Your task to perform on an android device: install app "Adobe Express: Graphic Design" Image 0: 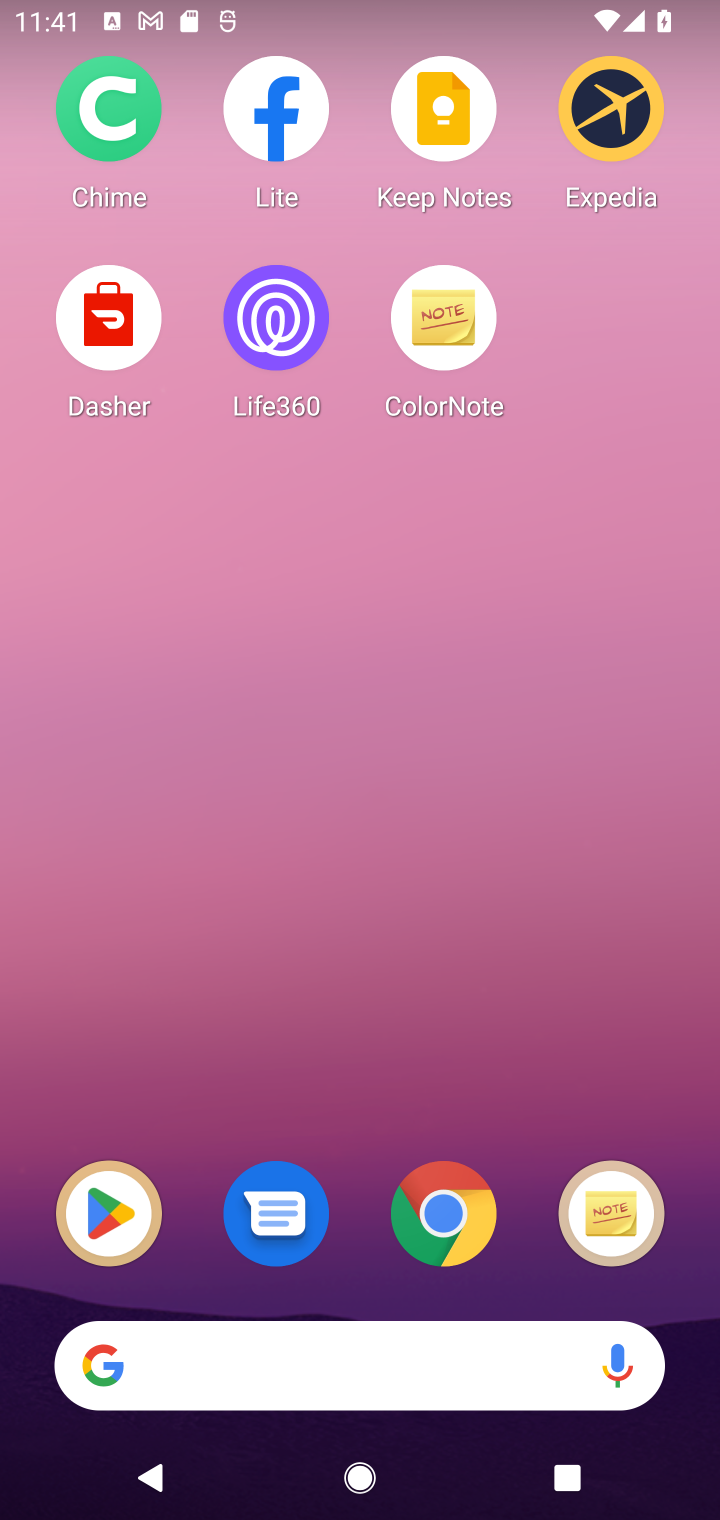
Step 0: click (79, 1227)
Your task to perform on an android device: install app "Adobe Express: Graphic Design" Image 1: 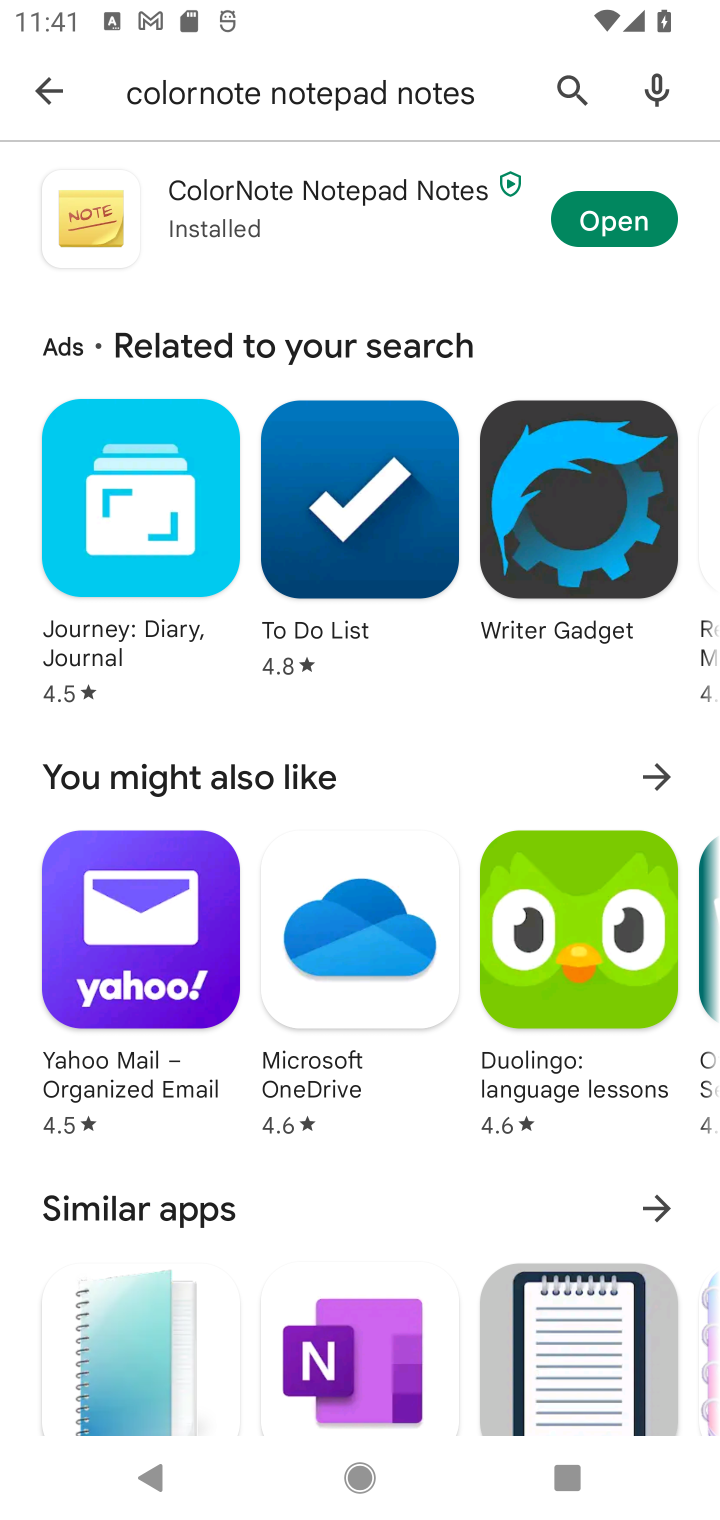
Step 1: click (55, 95)
Your task to perform on an android device: install app "Adobe Express: Graphic Design" Image 2: 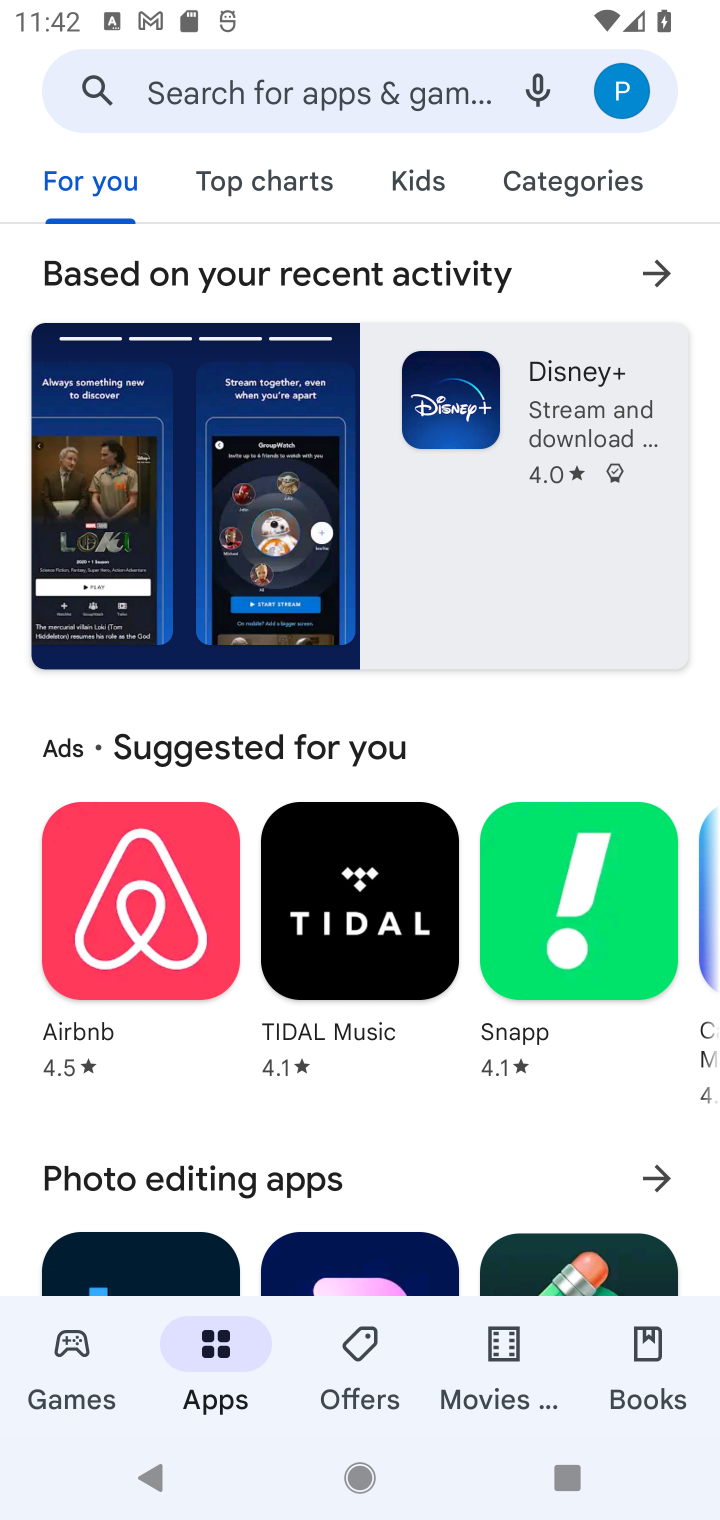
Step 2: click (348, 93)
Your task to perform on an android device: install app "Adobe Express: Graphic Design" Image 3: 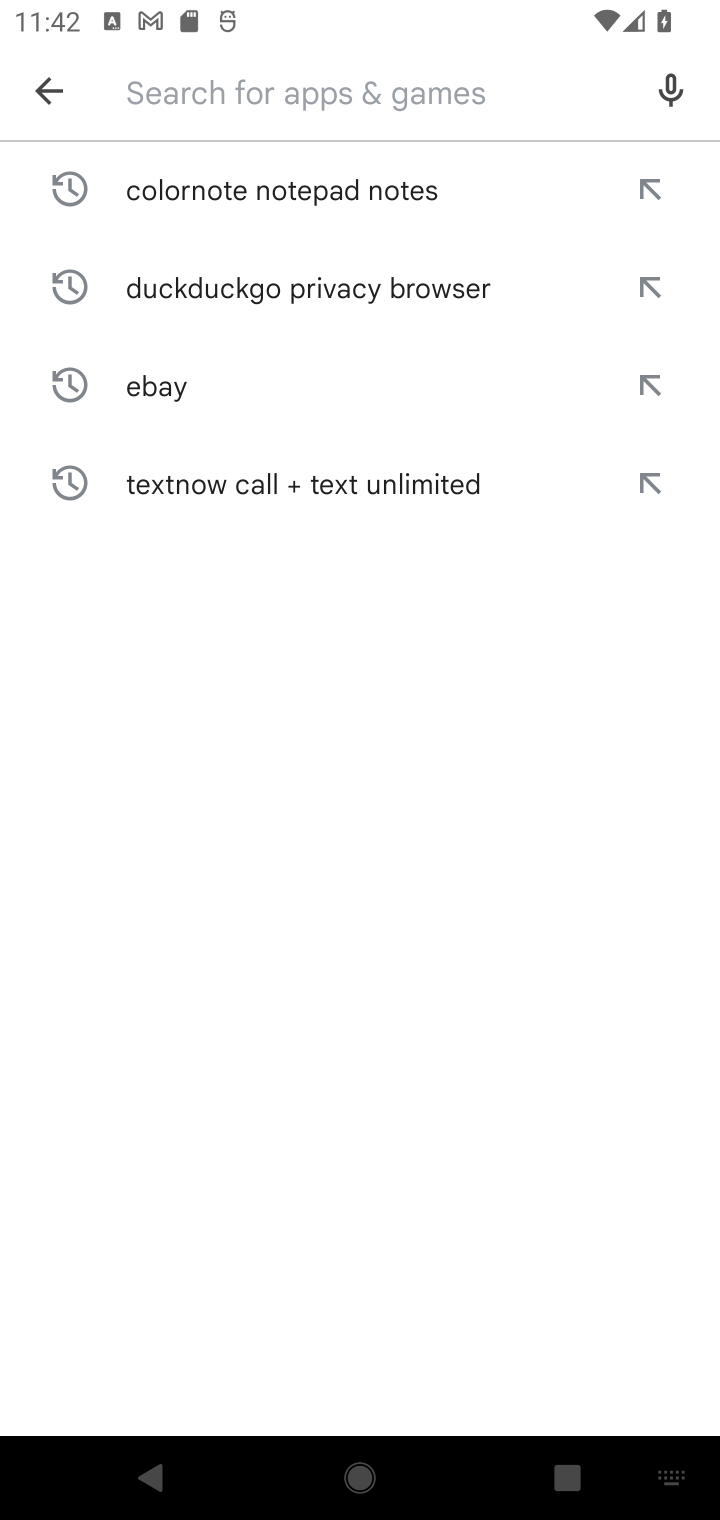
Step 3: type "Adobe Express: Graphic Design"
Your task to perform on an android device: install app "Adobe Express: Graphic Design" Image 4: 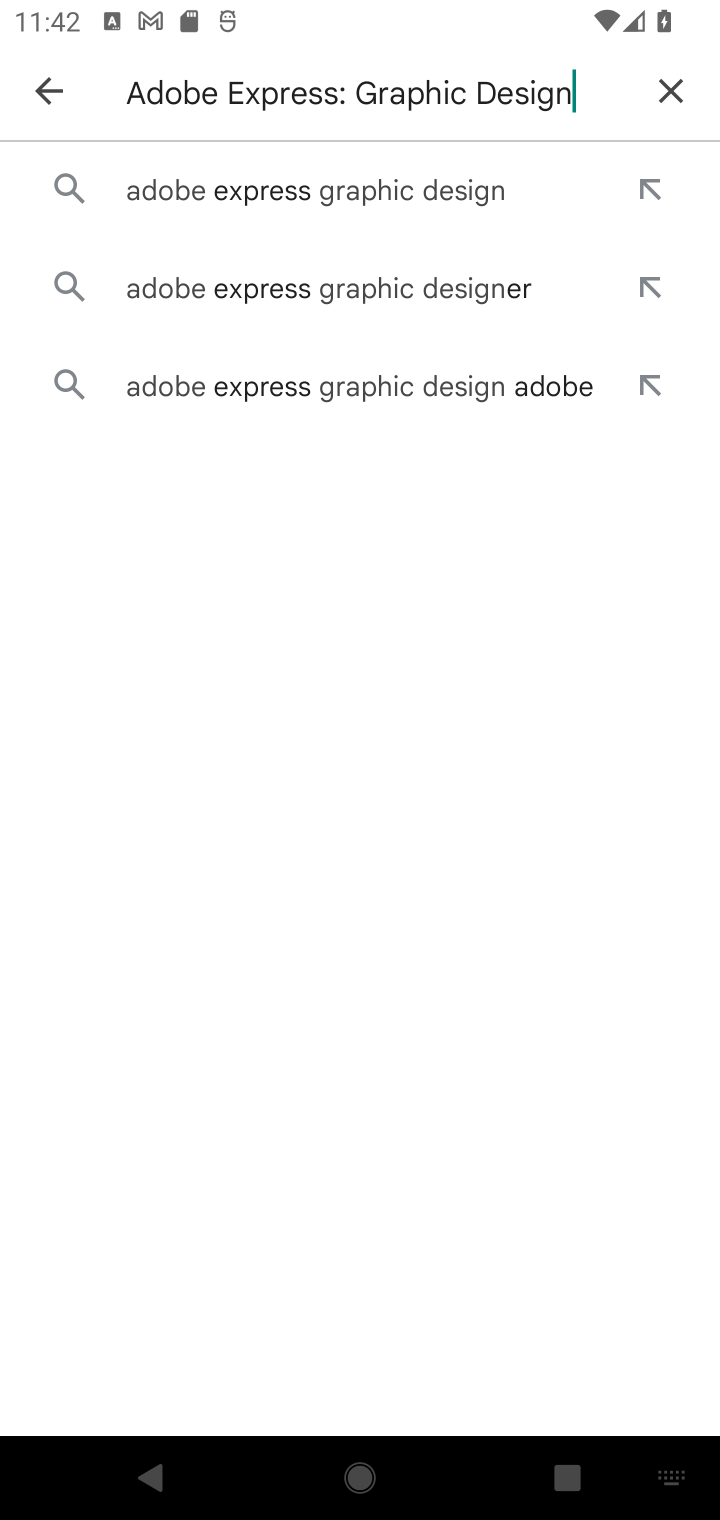
Step 4: click (365, 185)
Your task to perform on an android device: install app "Adobe Express: Graphic Design" Image 5: 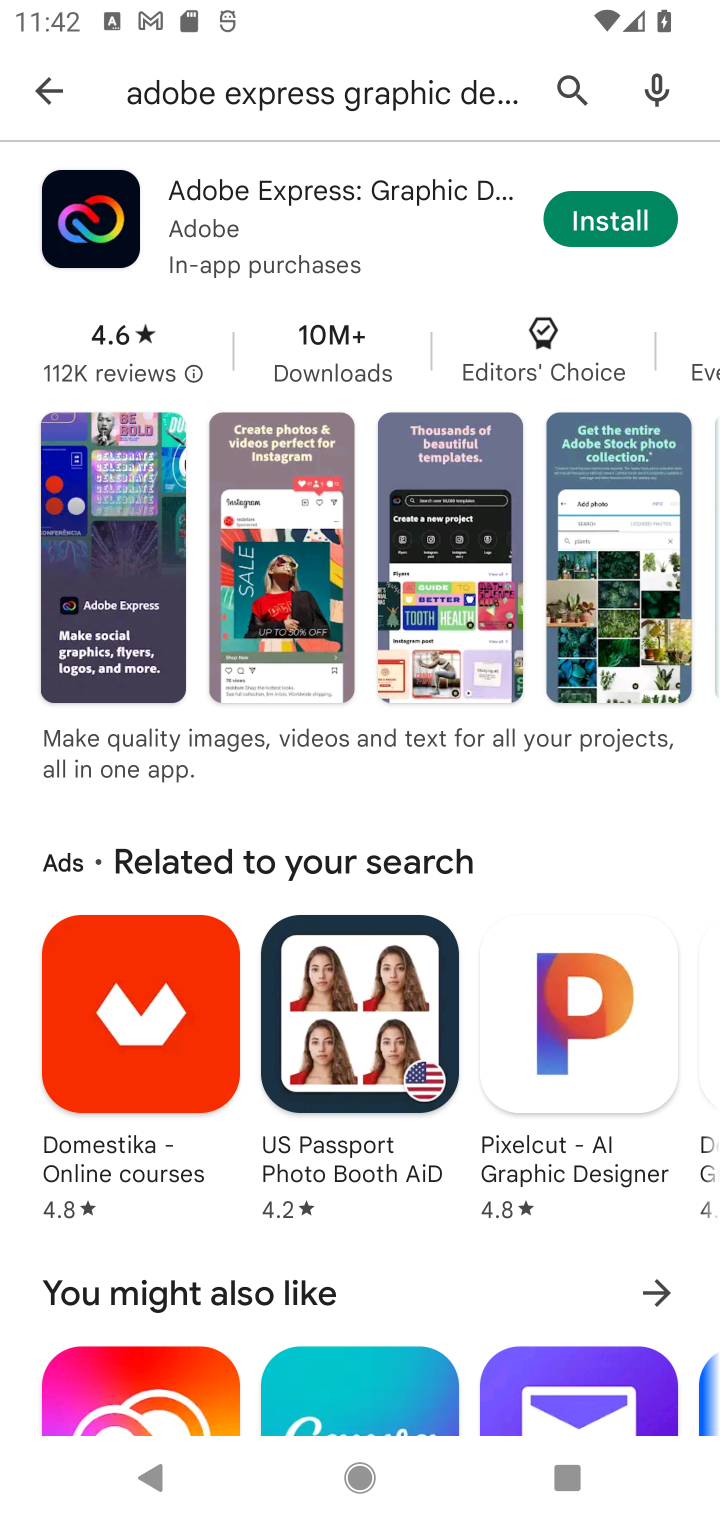
Step 5: click (581, 231)
Your task to perform on an android device: install app "Adobe Express: Graphic Design" Image 6: 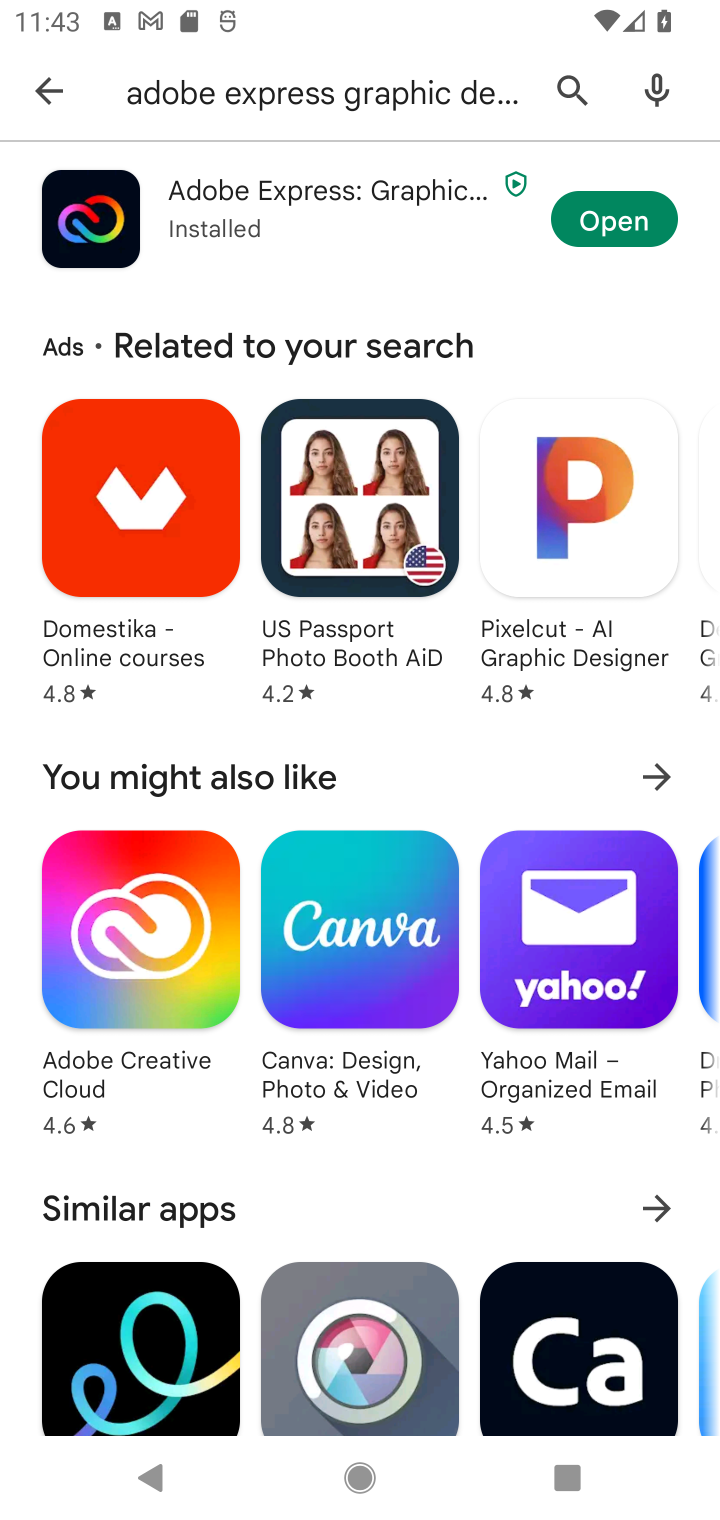
Step 6: task complete